Your task to perform on an android device: Go to wifi settings Image 0: 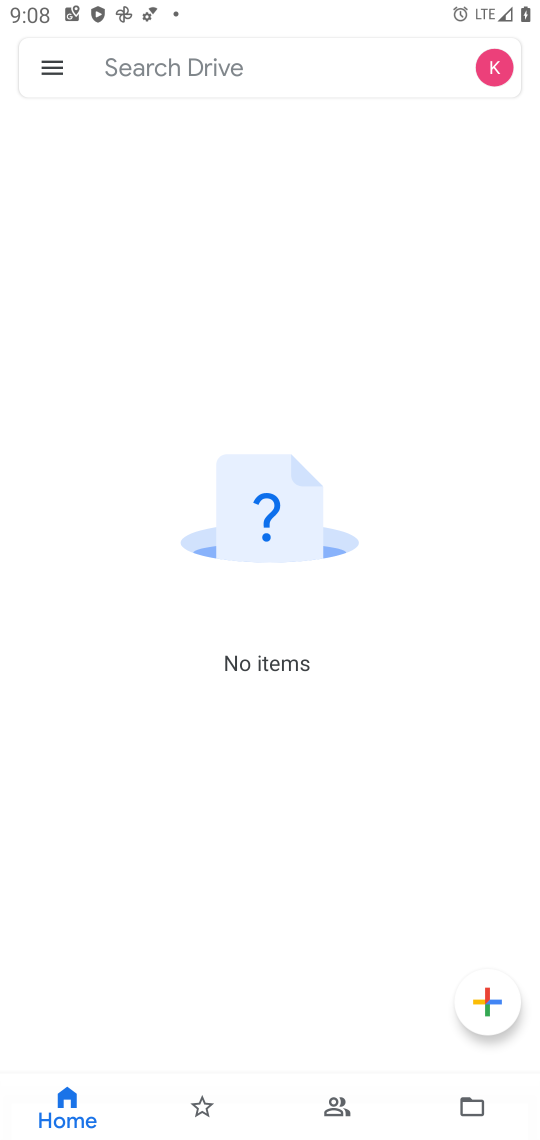
Step 0: press home button
Your task to perform on an android device: Go to wifi settings Image 1: 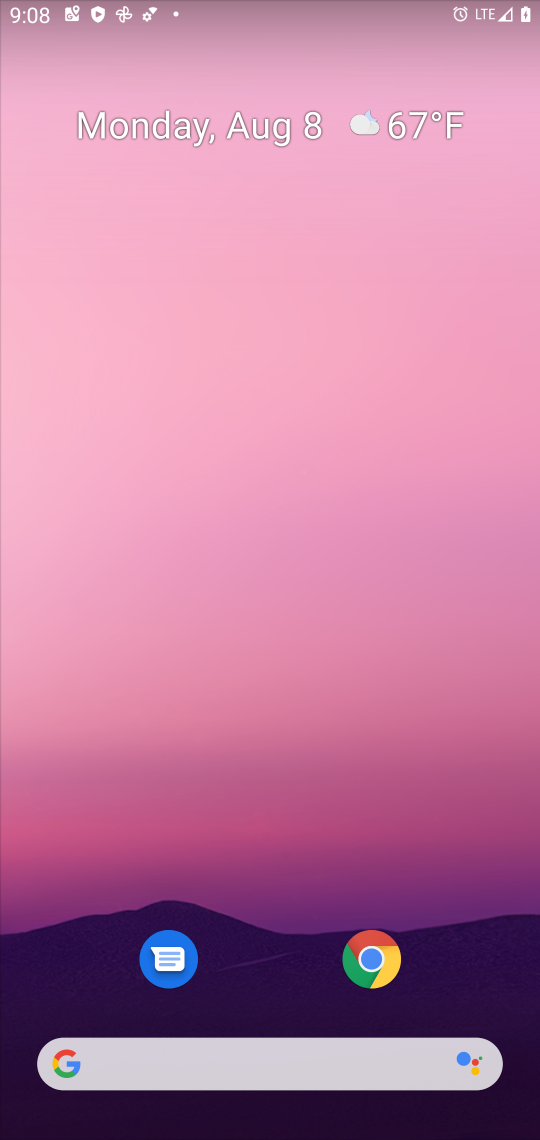
Step 1: drag from (398, 767) to (202, 85)
Your task to perform on an android device: Go to wifi settings Image 2: 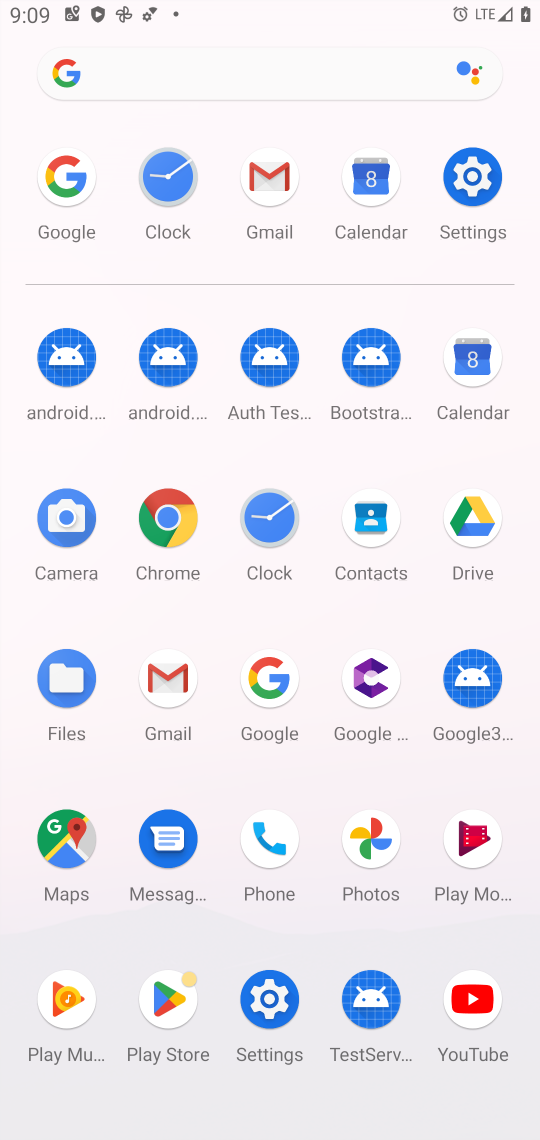
Step 2: click (273, 1008)
Your task to perform on an android device: Go to wifi settings Image 3: 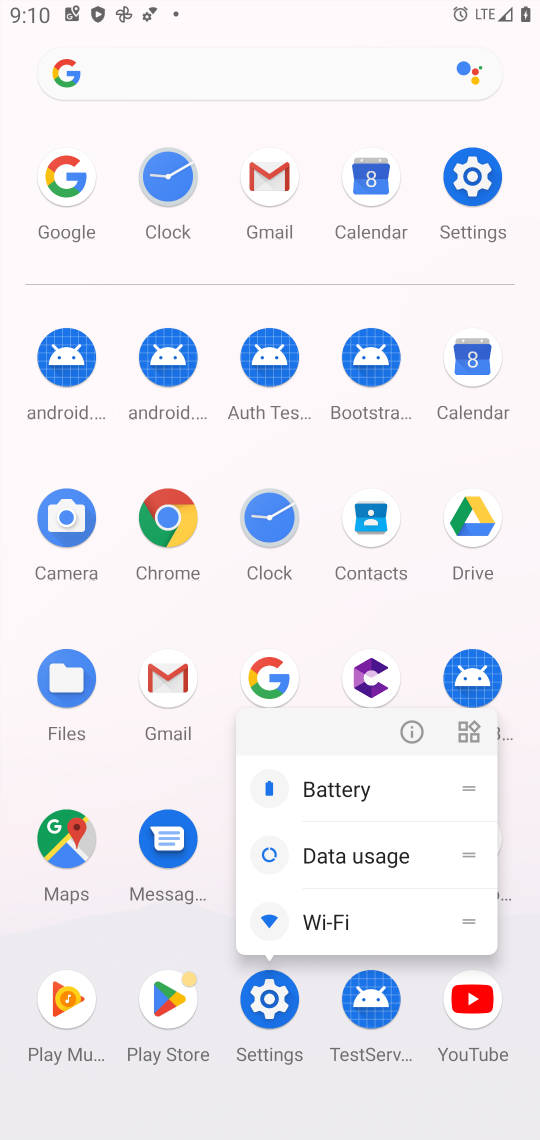
Step 3: click (239, 1037)
Your task to perform on an android device: Go to wifi settings Image 4: 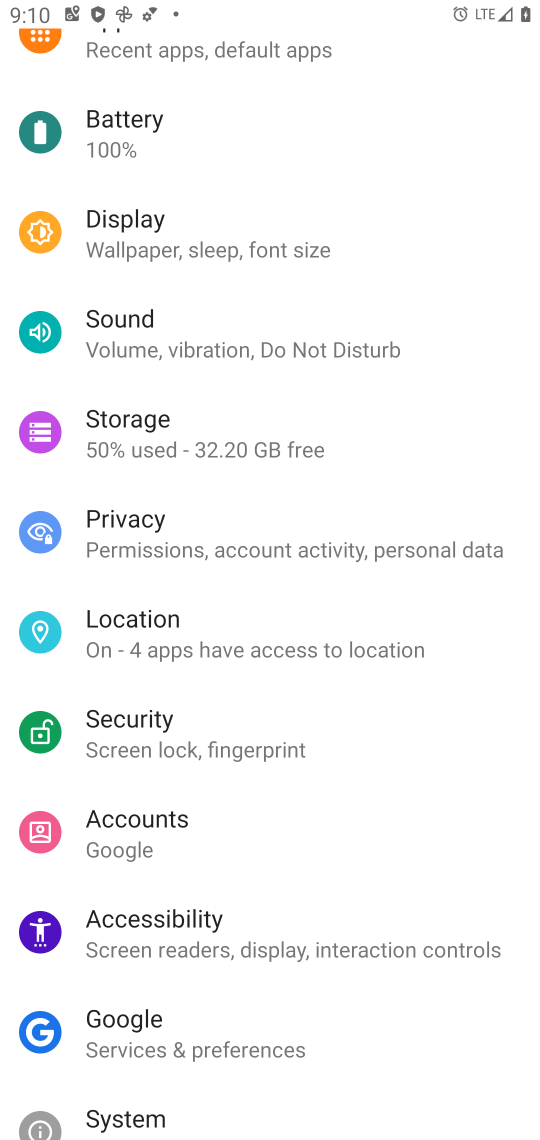
Step 4: drag from (196, 105) to (386, 1133)
Your task to perform on an android device: Go to wifi settings Image 5: 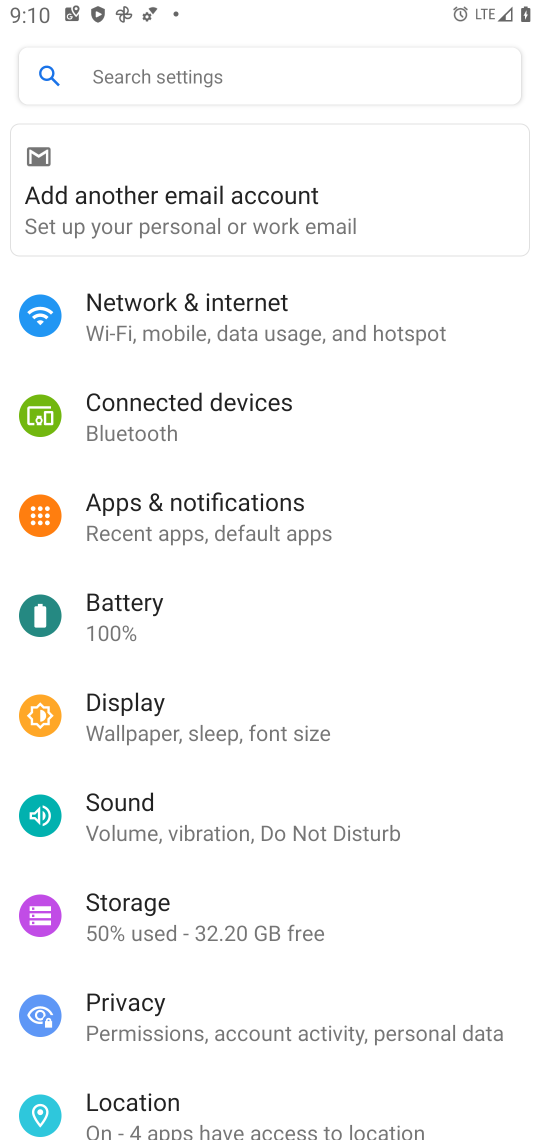
Step 5: click (203, 316)
Your task to perform on an android device: Go to wifi settings Image 6: 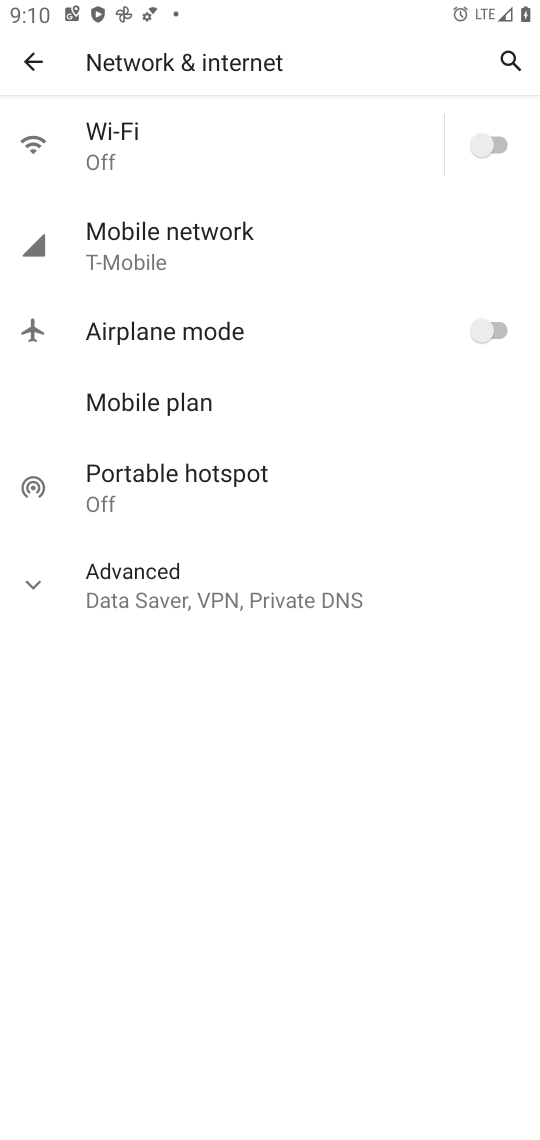
Step 6: click (159, 126)
Your task to perform on an android device: Go to wifi settings Image 7: 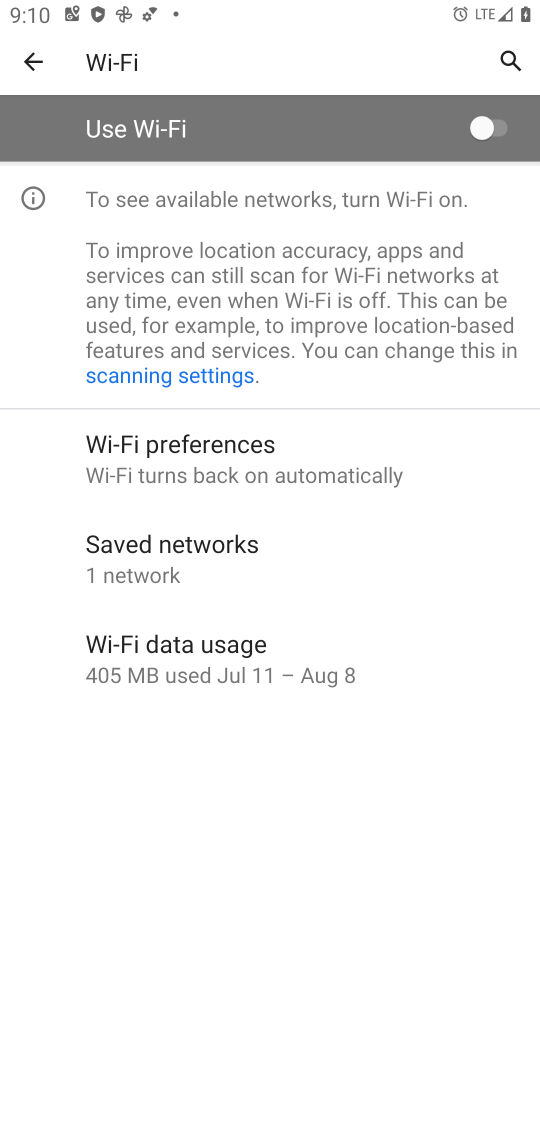
Step 7: task complete